Your task to perform on an android device: Open accessibility settings Image 0: 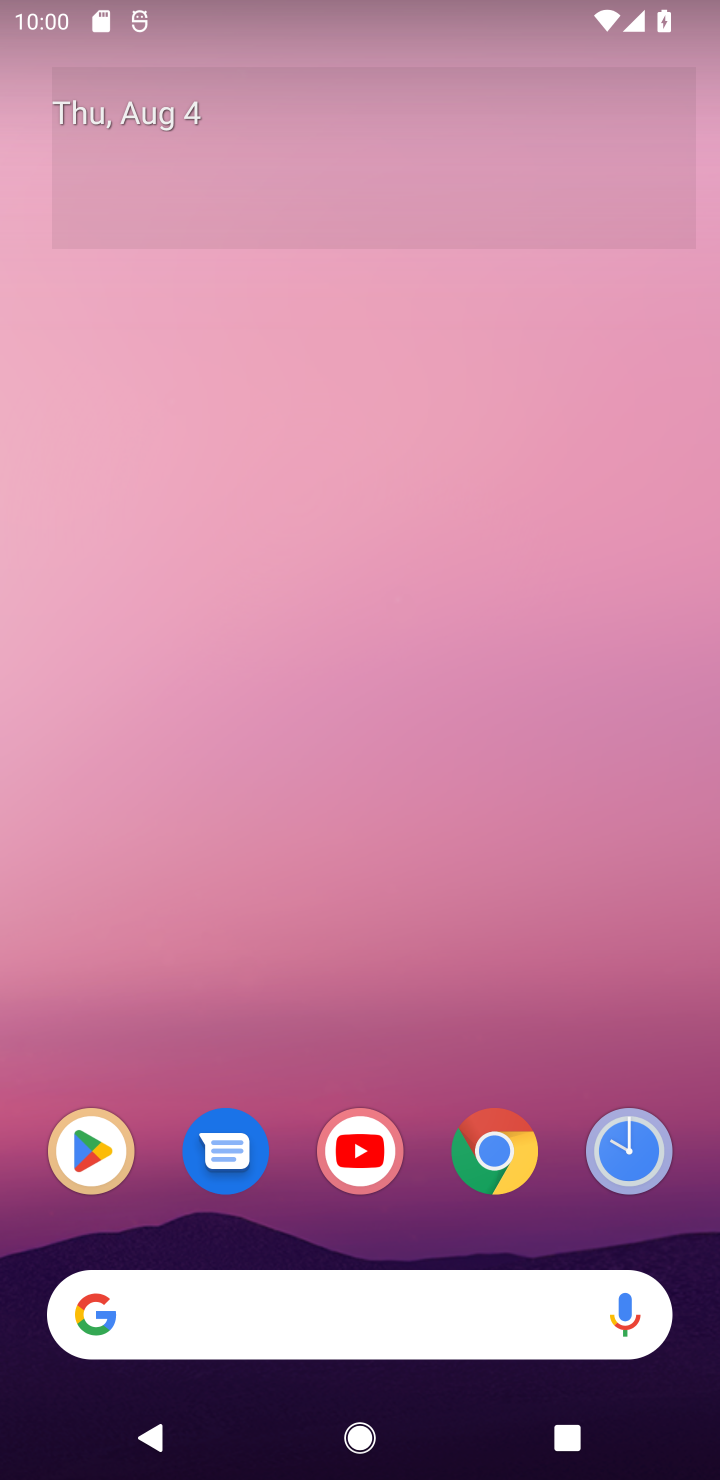
Step 0: press home button
Your task to perform on an android device: Open accessibility settings Image 1: 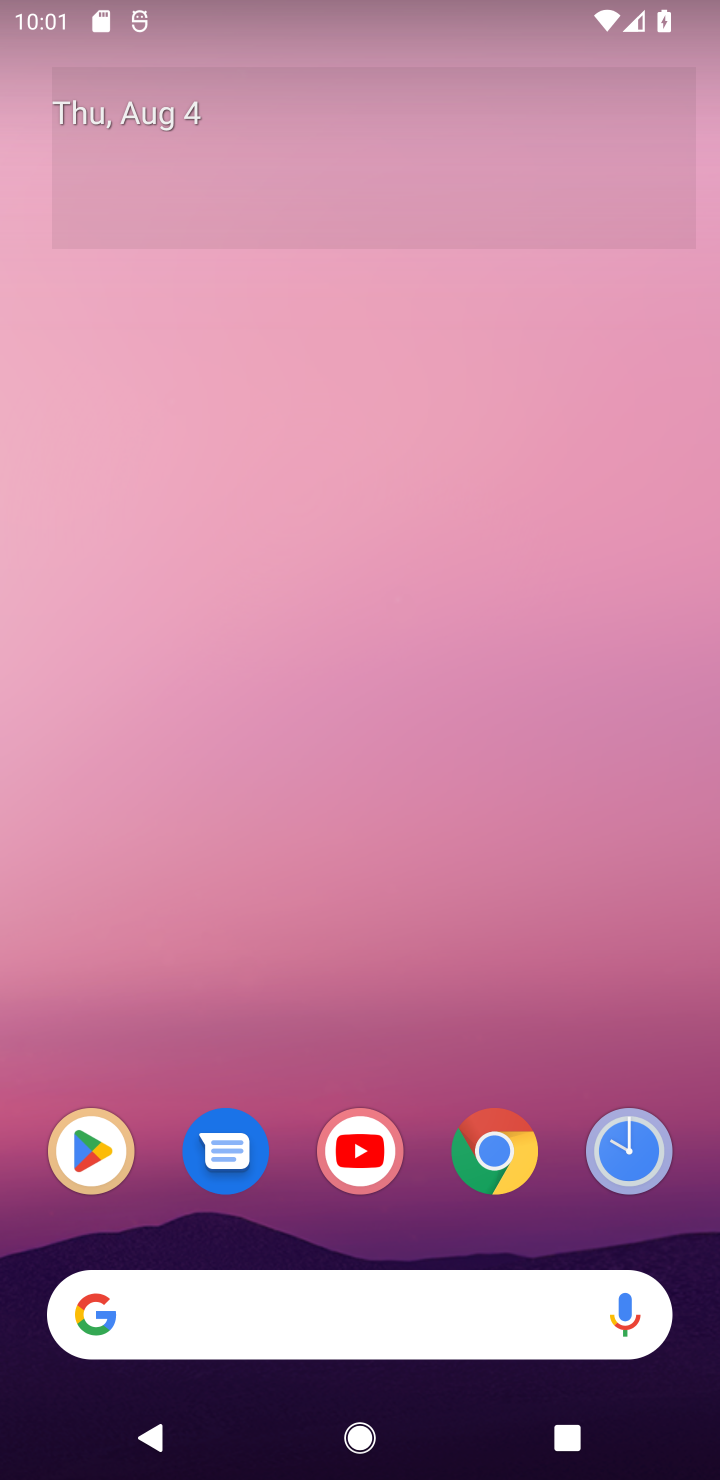
Step 1: drag from (392, 1209) to (253, 411)
Your task to perform on an android device: Open accessibility settings Image 2: 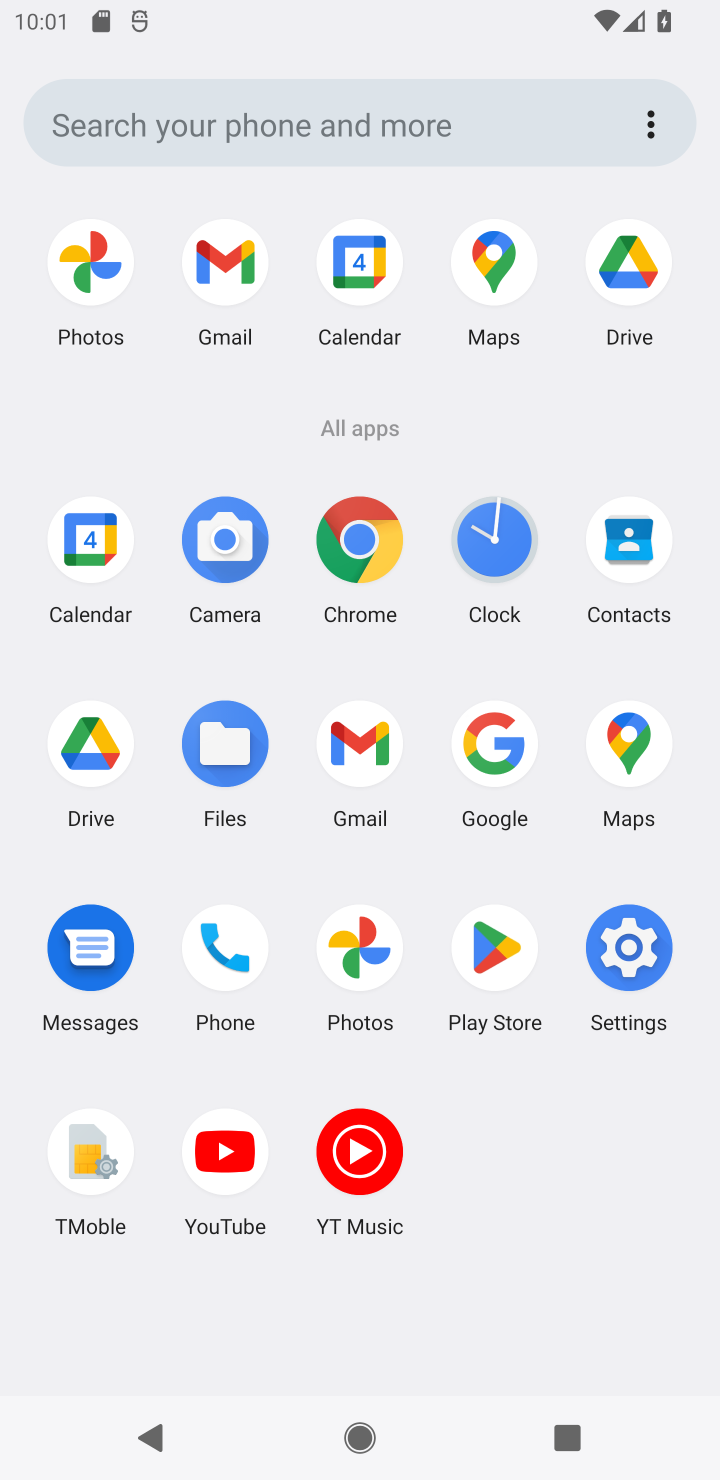
Step 2: click (616, 982)
Your task to perform on an android device: Open accessibility settings Image 3: 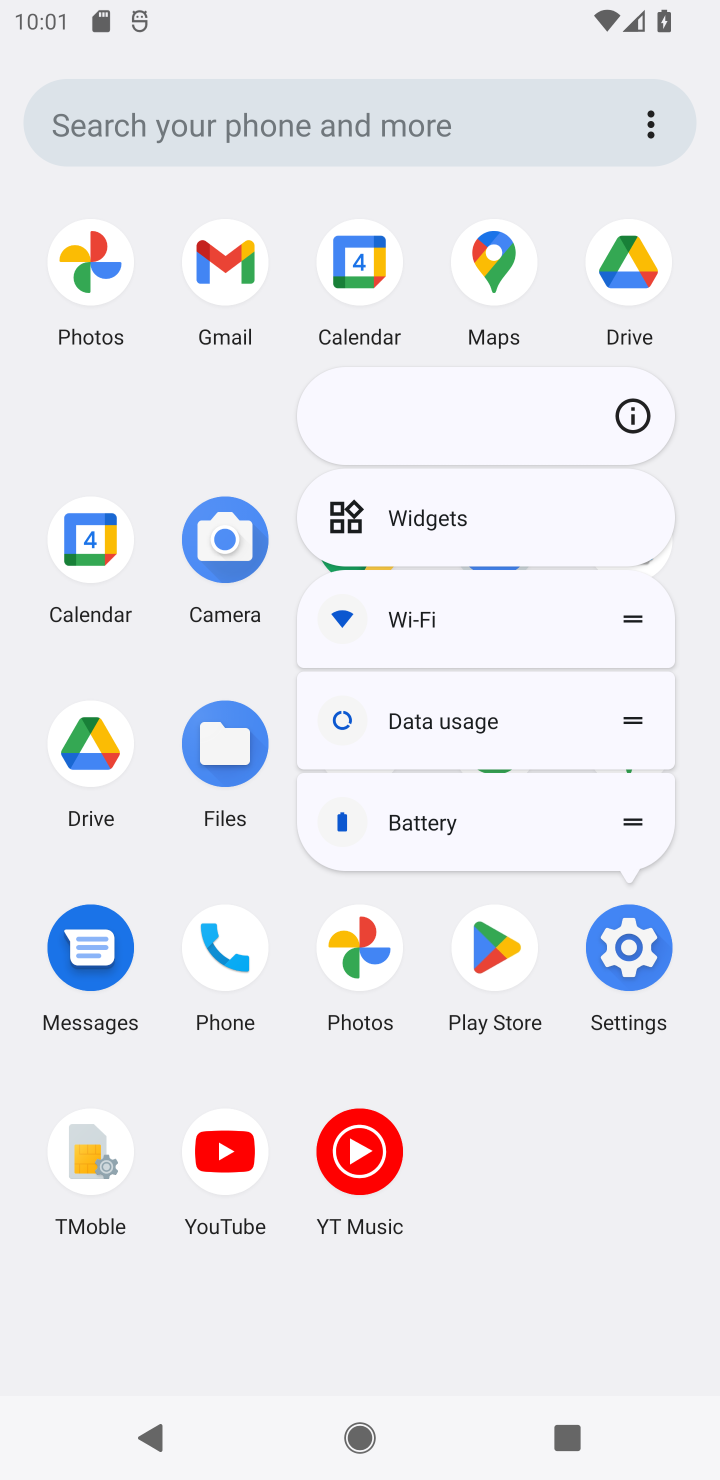
Step 3: click (616, 982)
Your task to perform on an android device: Open accessibility settings Image 4: 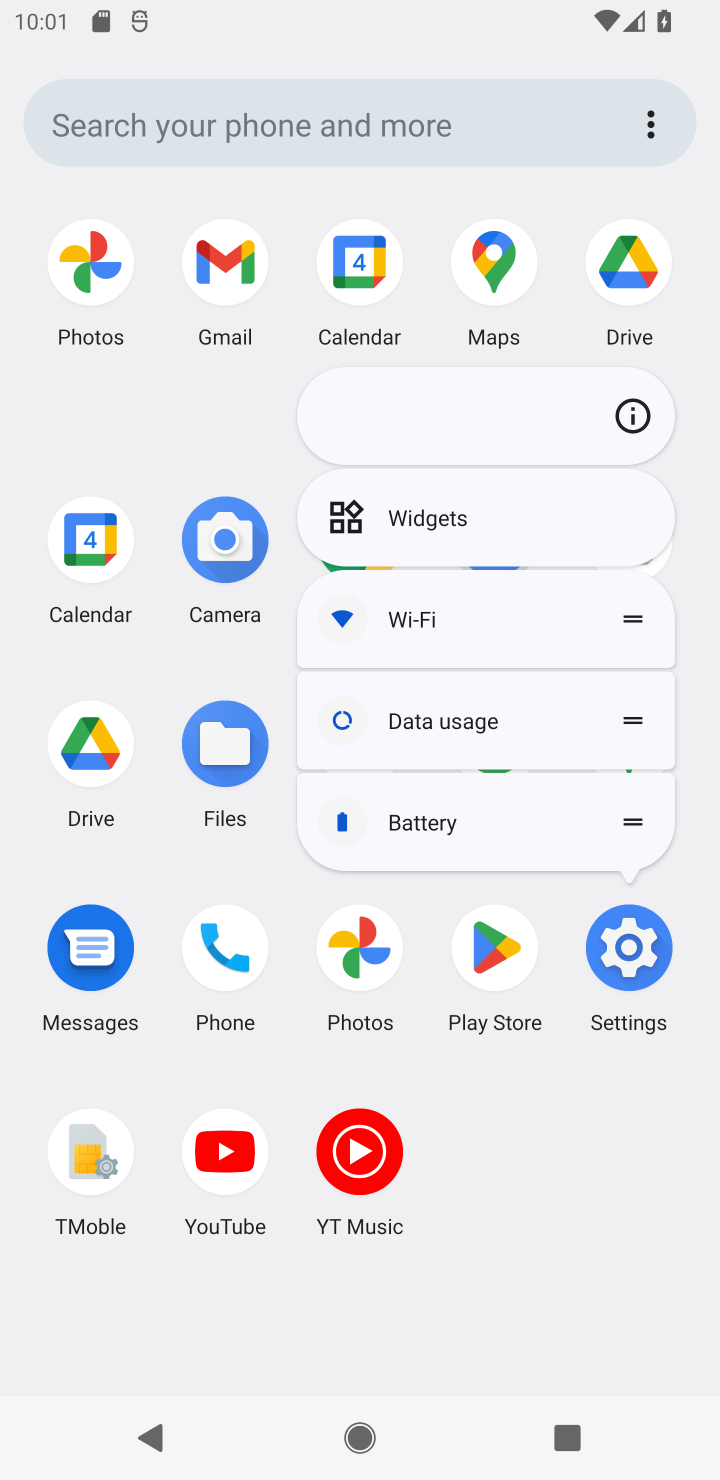
Step 4: click (616, 982)
Your task to perform on an android device: Open accessibility settings Image 5: 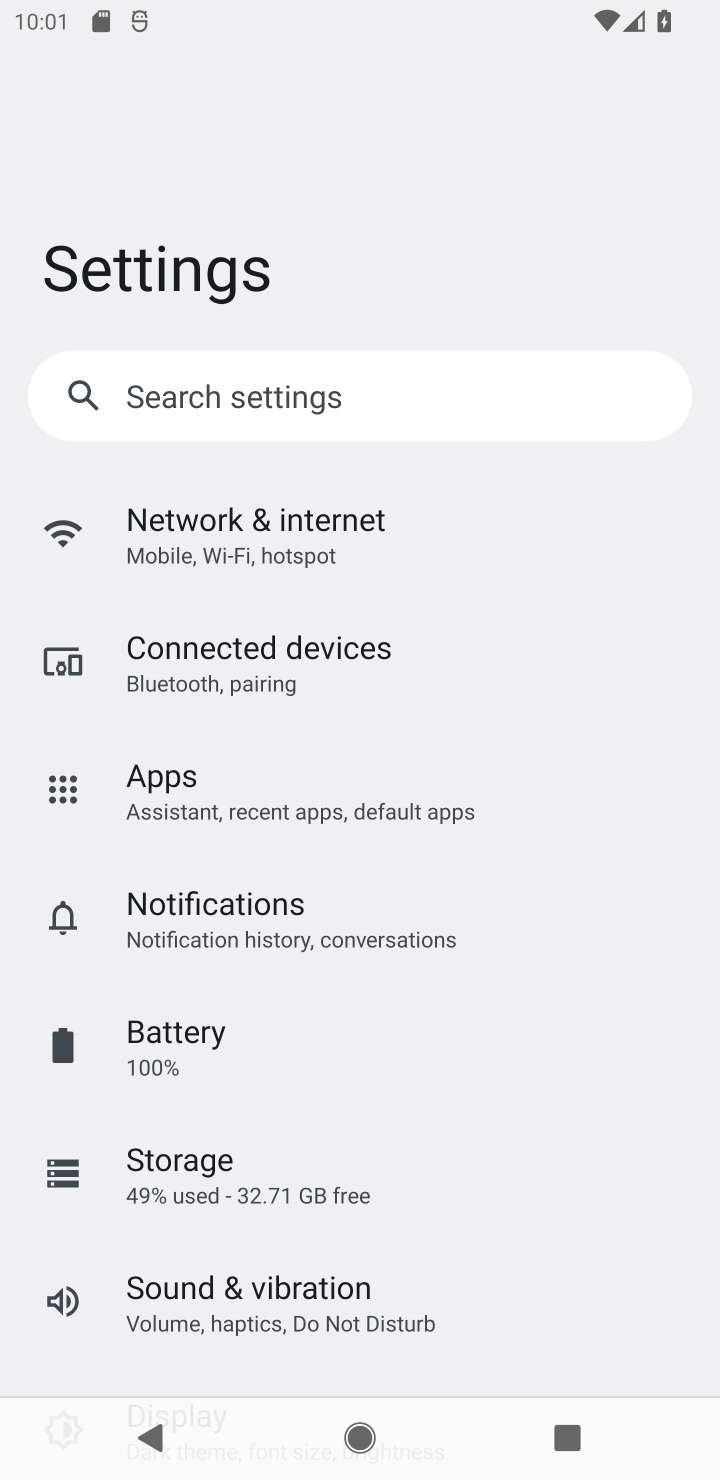
Step 5: drag from (541, 1174) to (503, 226)
Your task to perform on an android device: Open accessibility settings Image 6: 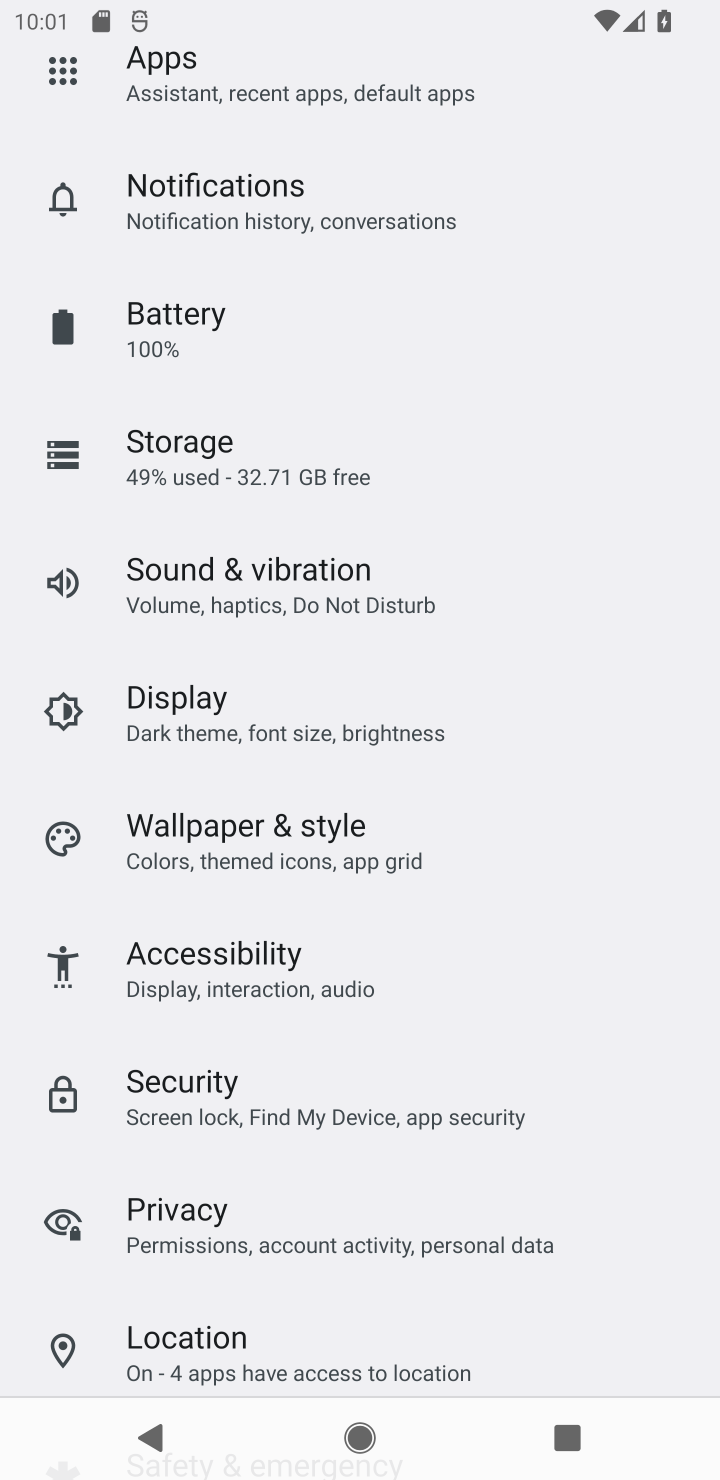
Step 6: click (207, 973)
Your task to perform on an android device: Open accessibility settings Image 7: 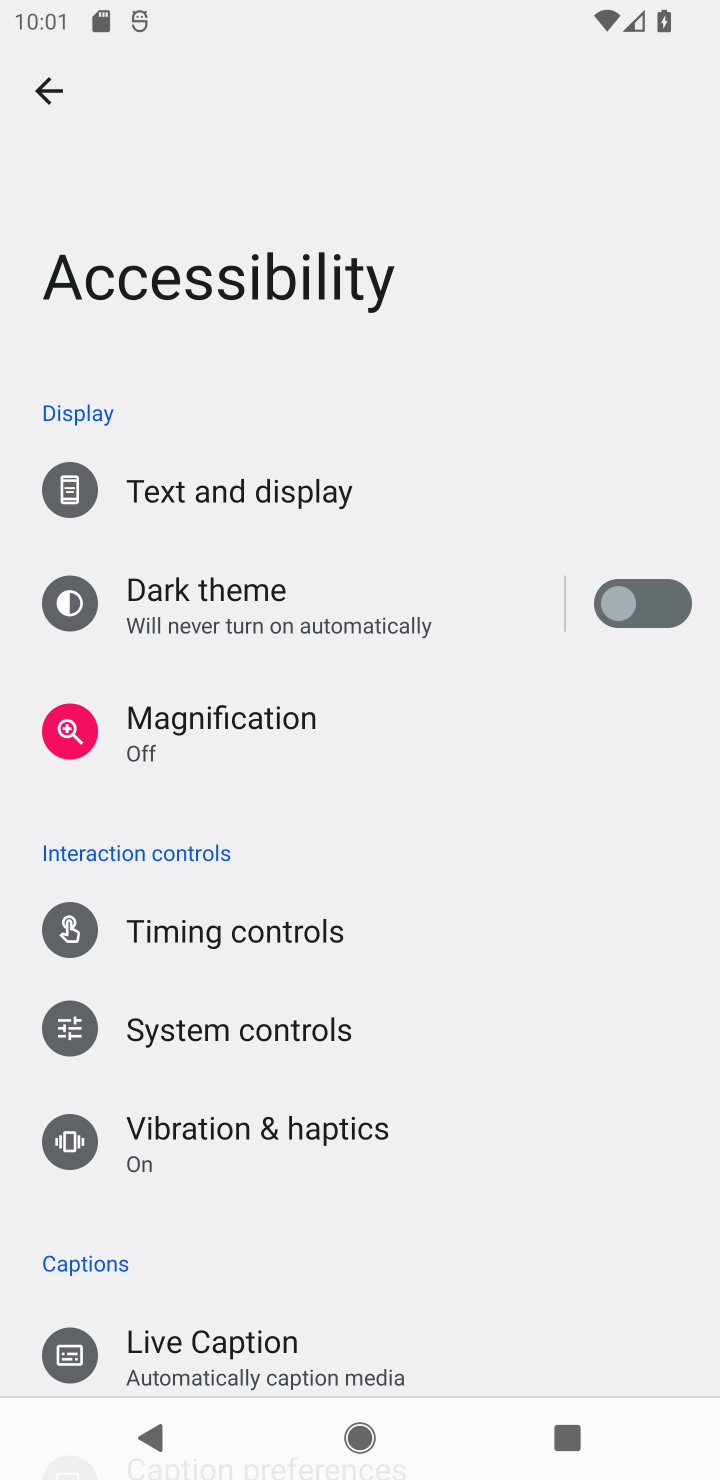
Step 7: task complete